Your task to perform on an android device: Open Reddit.com Image 0: 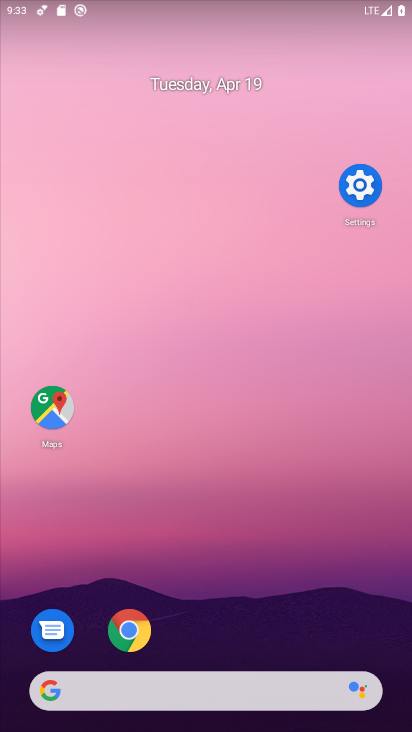
Step 0: drag from (278, 649) to (292, 146)
Your task to perform on an android device: Open Reddit.com Image 1: 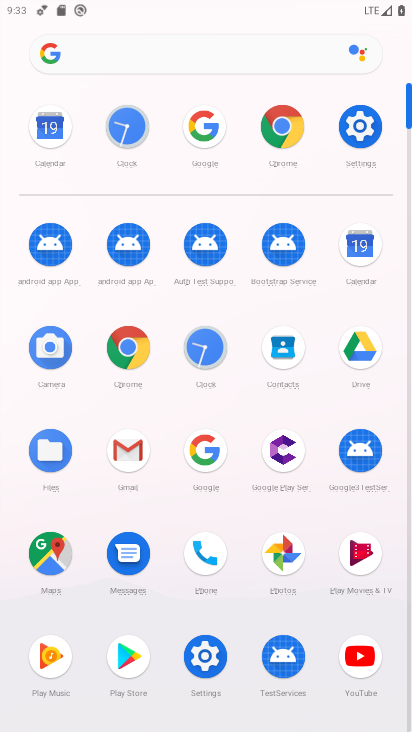
Step 1: click (284, 144)
Your task to perform on an android device: Open Reddit.com Image 2: 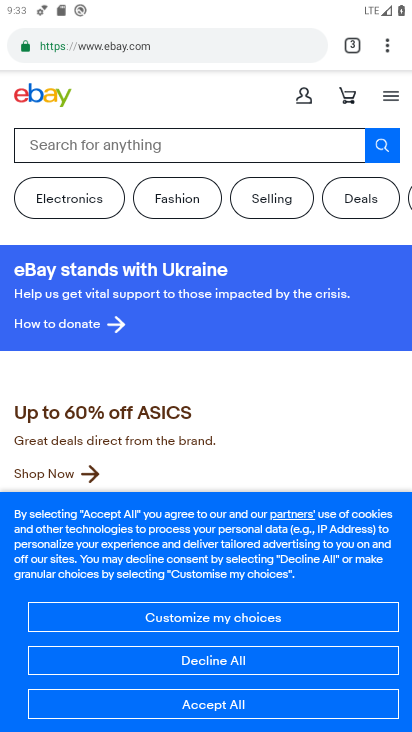
Step 2: click (280, 46)
Your task to perform on an android device: Open Reddit.com Image 3: 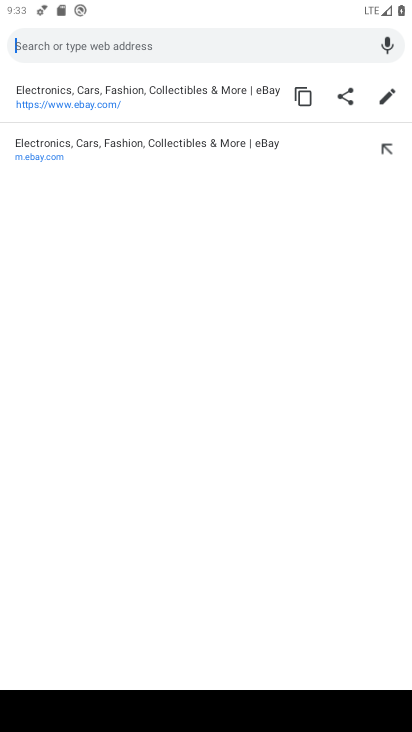
Step 3: type "reddit.com"
Your task to perform on an android device: Open Reddit.com Image 4: 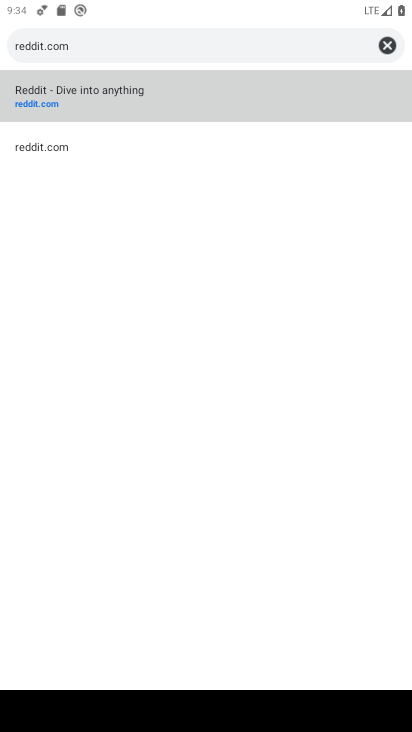
Step 4: click (263, 98)
Your task to perform on an android device: Open Reddit.com Image 5: 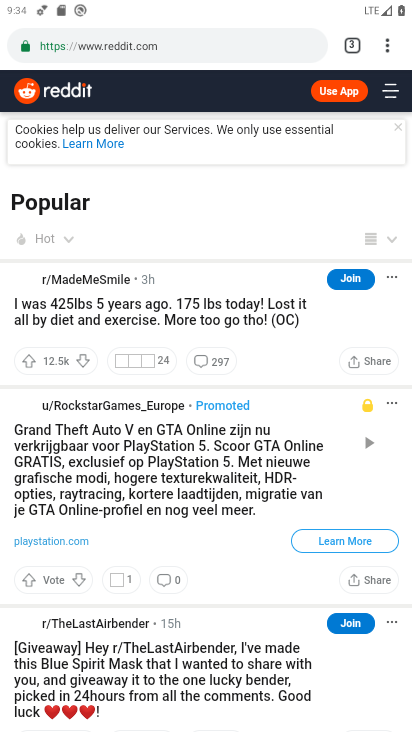
Step 5: task complete